Your task to perform on an android device: Open CNN.com Image 0: 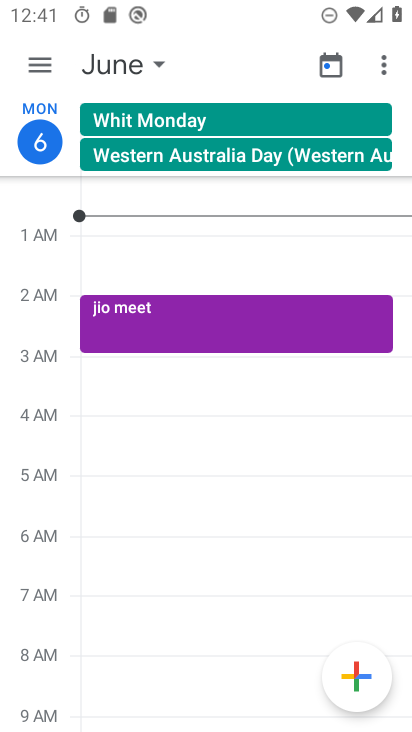
Step 0: press home button
Your task to perform on an android device: Open CNN.com Image 1: 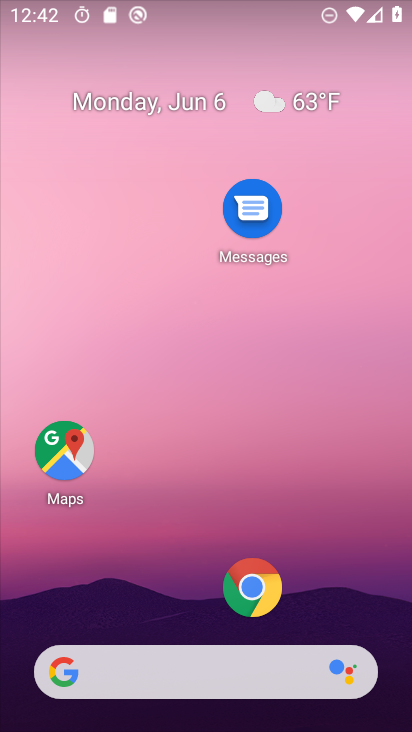
Step 1: click (201, 680)
Your task to perform on an android device: Open CNN.com Image 2: 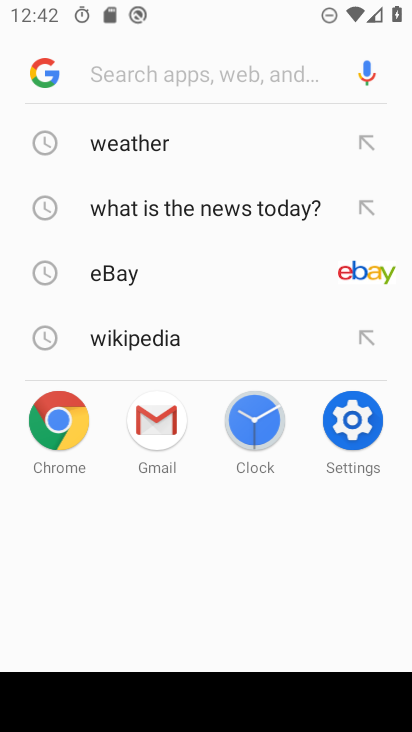
Step 2: type "cnn"
Your task to perform on an android device: Open CNN.com Image 3: 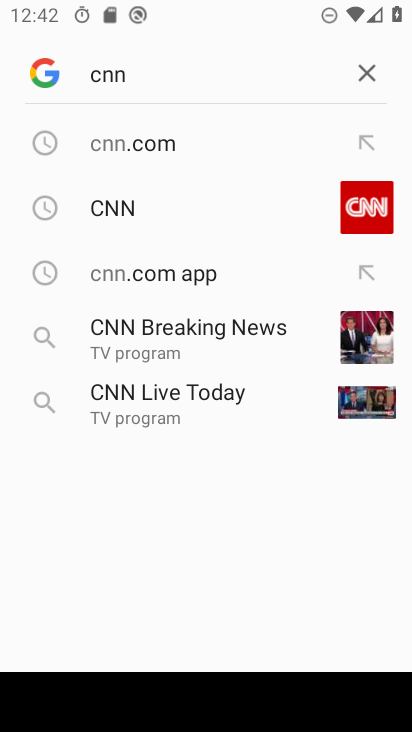
Step 3: task complete